Your task to perform on an android device: find snoozed emails in the gmail app Image 0: 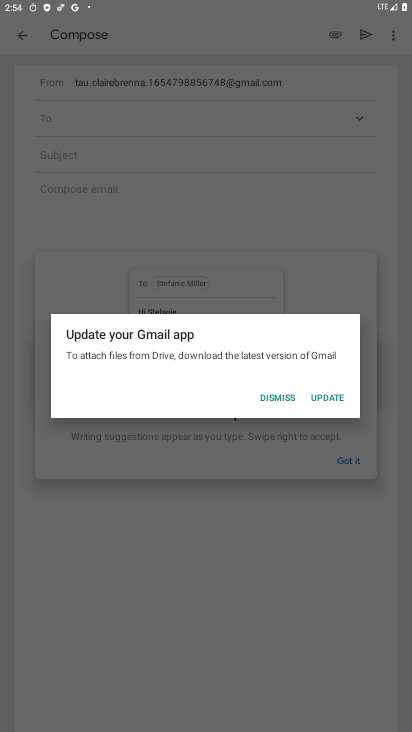
Step 0: press home button
Your task to perform on an android device: find snoozed emails in the gmail app Image 1: 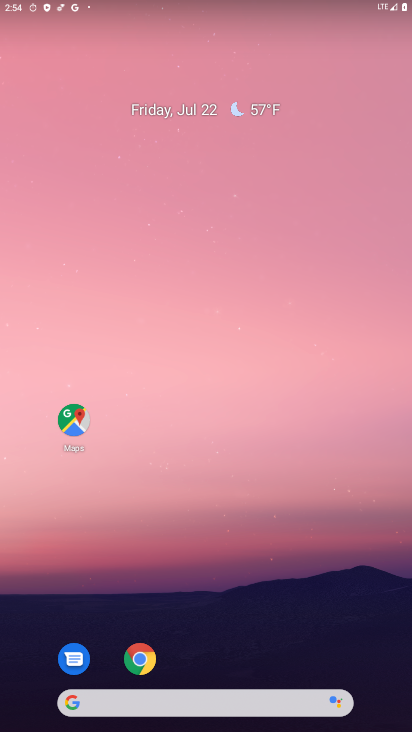
Step 1: drag from (278, 588) to (276, 107)
Your task to perform on an android device: find snoozed emails in the gmail app Image 2: 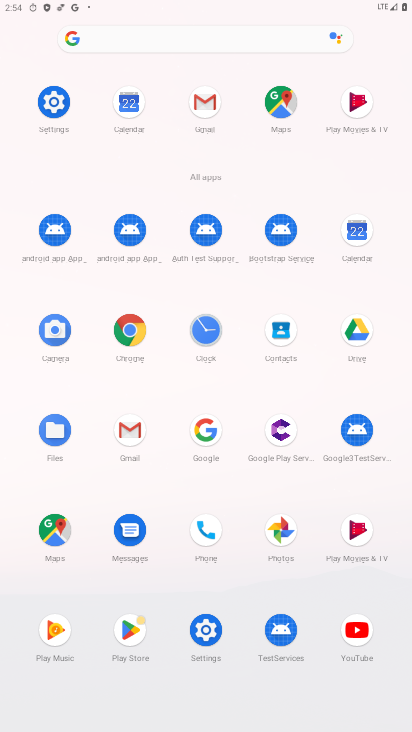
Step 2: click (124, 431)
Your task to perform on an android device: find snoozed emails in the gmail app Image 3: 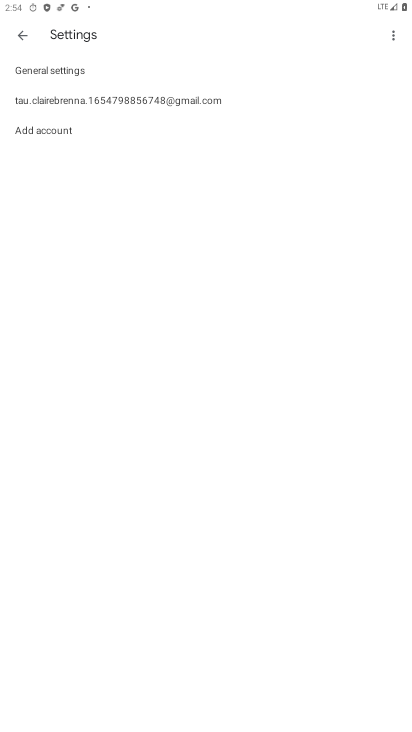
Step 3: click (17, 36)
Your task to perform on an android device: find snoozed emails in the gmail app Image 4: 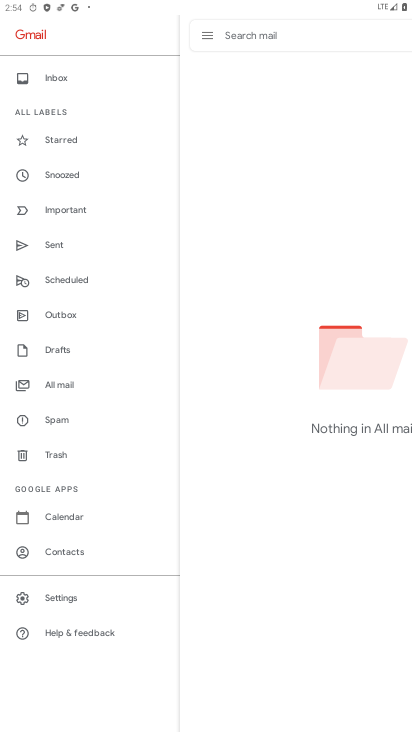
Step 4: click (45, 169)
Your task to perform on an android device: find snoozed emails in the gmail app Image 5: 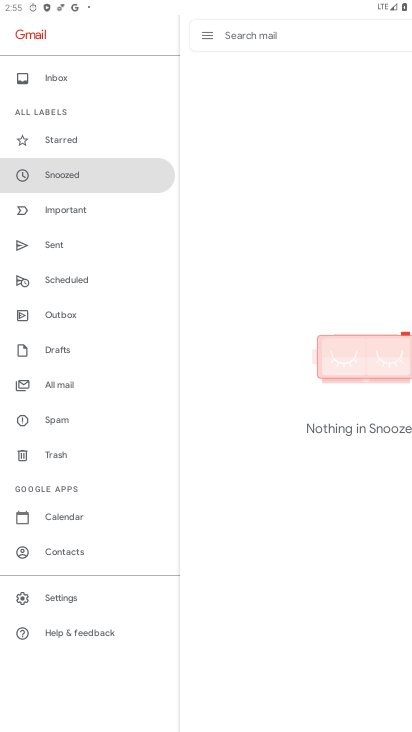
Step 5: task complete